Your task to perform on an android device: toggle airplane mode Image 0: 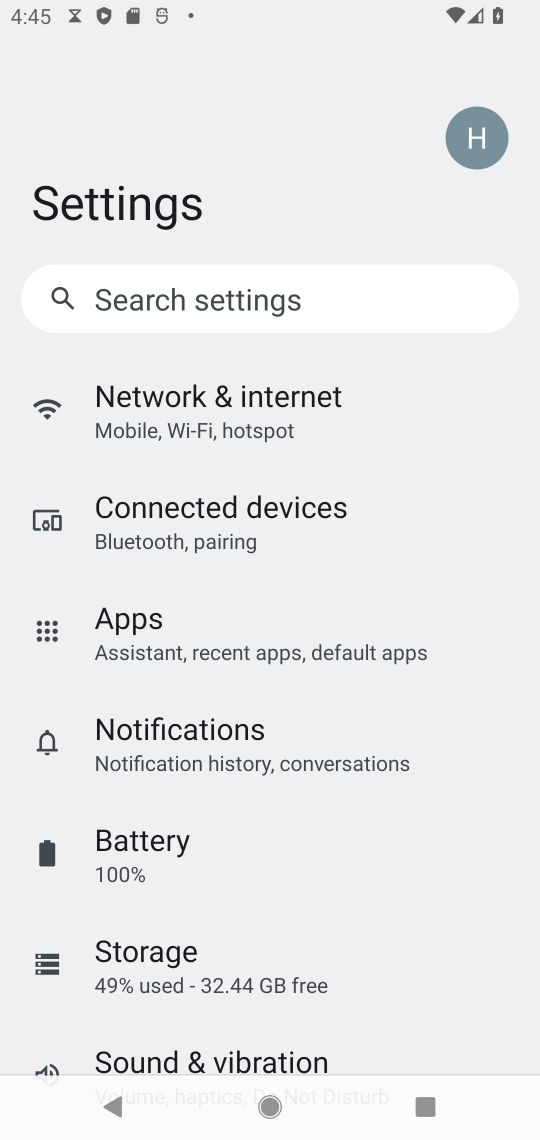
Step 0: click (134, 415)
Your task to perform on an android device: toggle airplane mode Image 1: 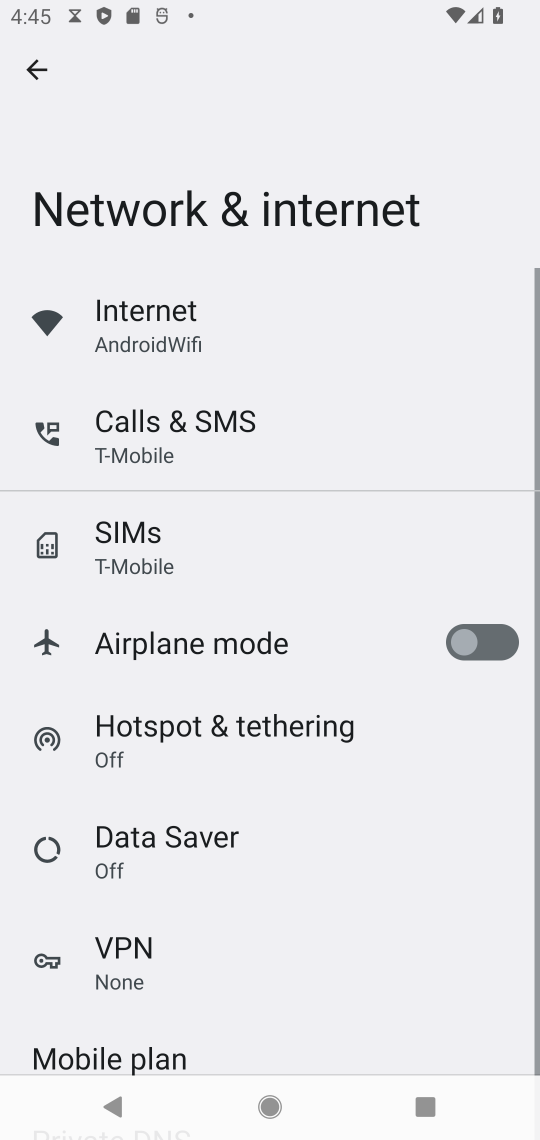
Step 1: click (472, 634)
Your task to perform on an android device: toggle airplane mode Image 2: 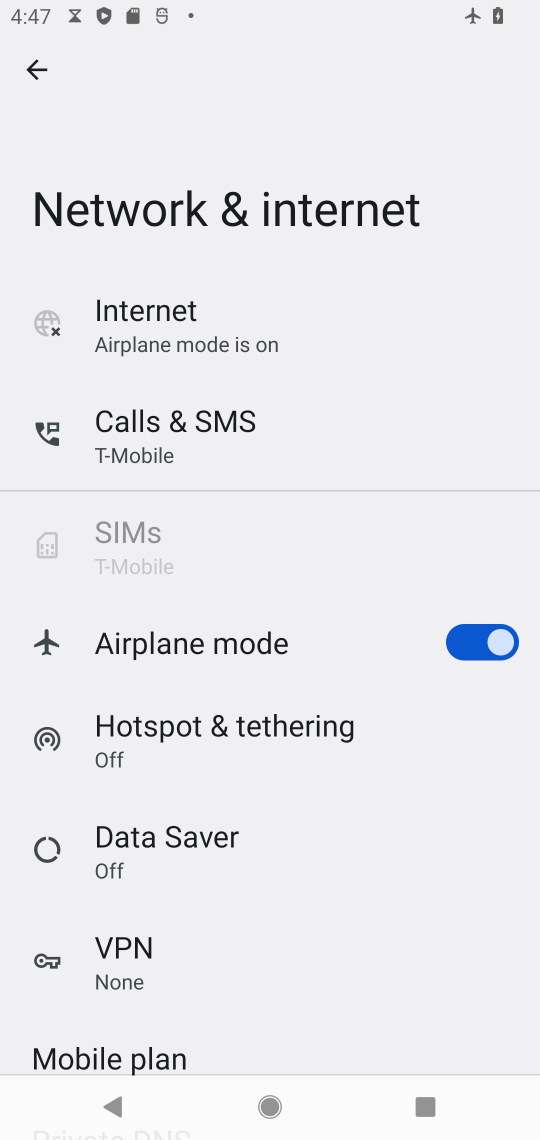
Step 2: task complete